Your task to perform on an android device: Open CNN.com Image 0: 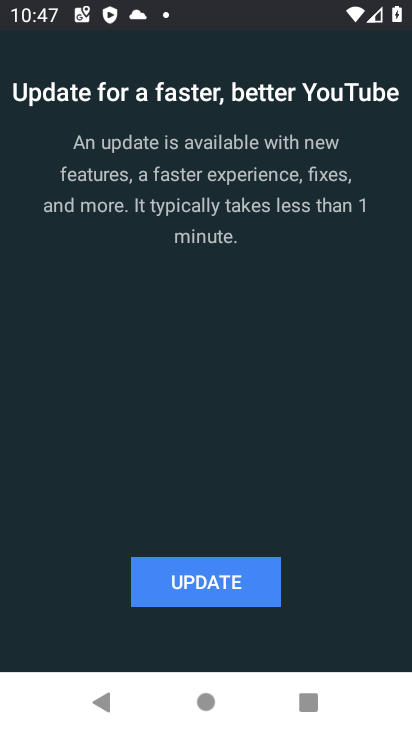
Step 0: press home button
Your task to perform on an android device: Open CNN.com Image 1: 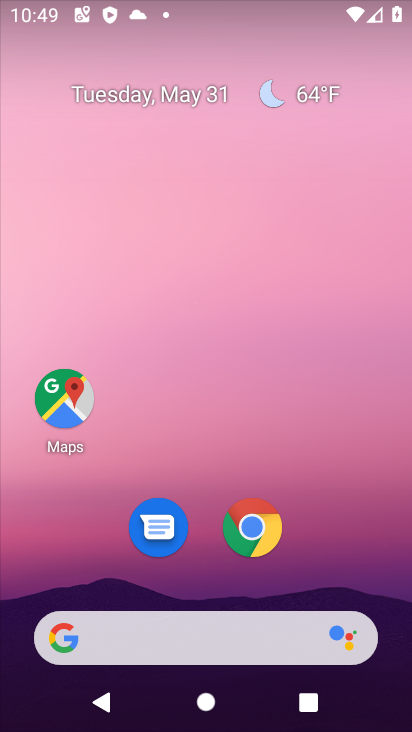
Step 1: click (238, 620)
Your task to perform on an android device: Open CNN.com Image 2: 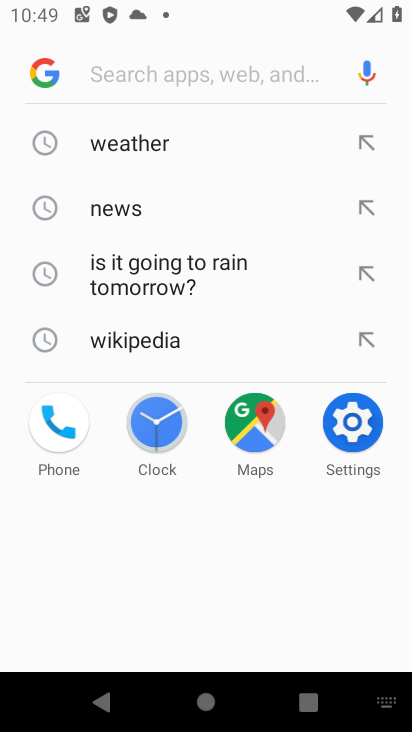
Step 2: type "cnn.com"
Your task to perform on an android device: Open CNN.com Image 3: 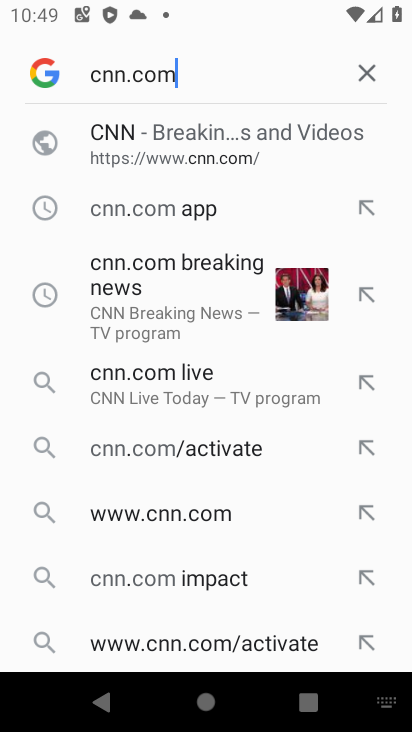
Step 3: click (258, 140)
Your task to perform on an android device: Open CNN.com Image 4: 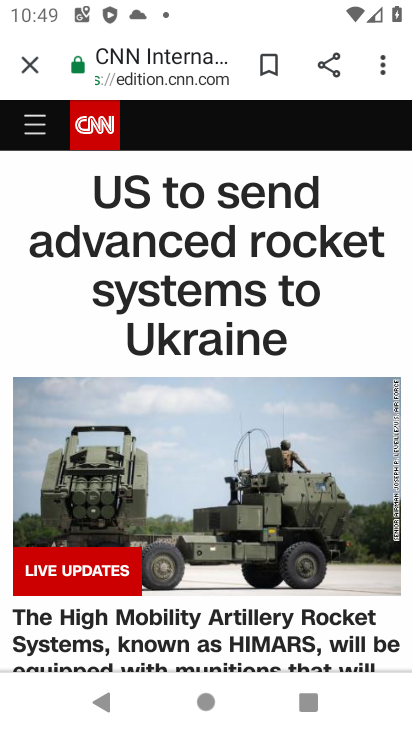
Step 4: task complete